Your task to perform on an android device: check battery use Image 0: 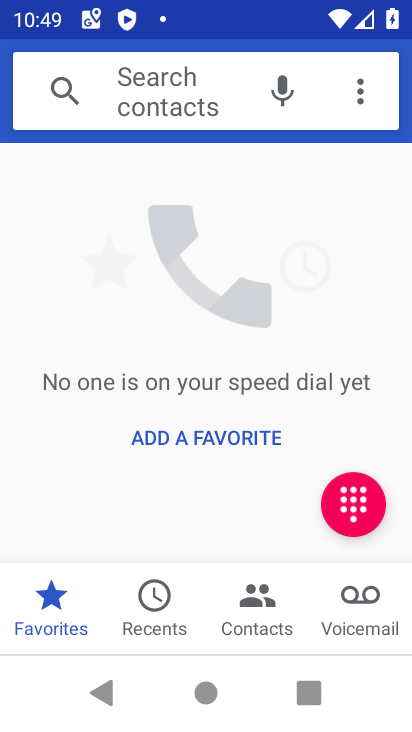
Step 0: press home button
Your task to perform on an android device: check battery use Image 1: 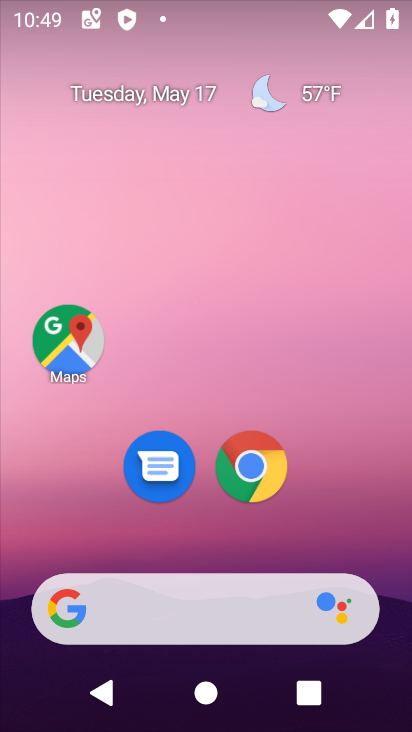
Step 1: drag from (224, 553) to (238, 0)
Your task to perform on an android device: check battery use Image 2: 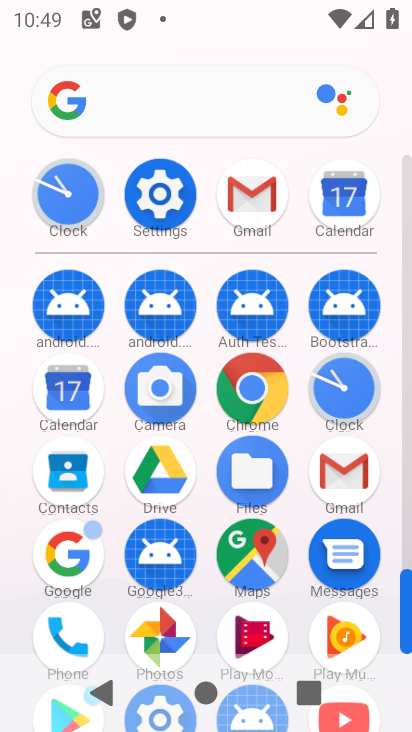
Step 2: click (172, 198)
Your task to perform on an android device: check battery use Image 3: 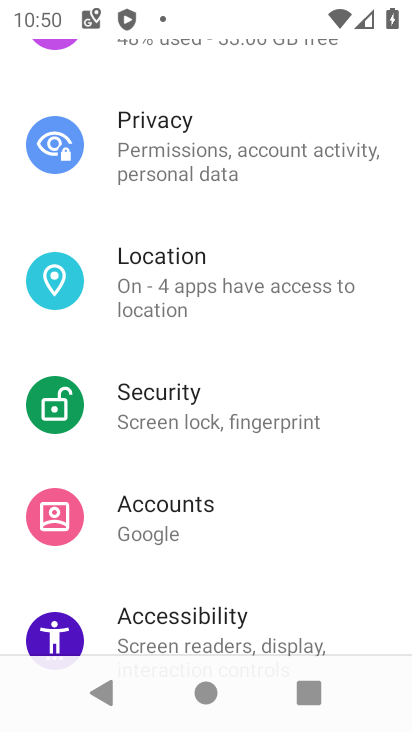
Step 3: drag from (216, 81) to (193, 481)
Your task to perform on an android device: check battery use Image 4: 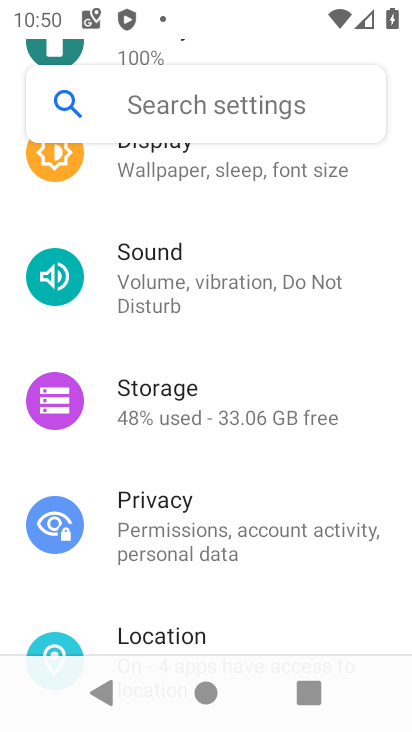
Step 4: drag from (157, 188) to (153, 528)
Your task to perform on an android device: check battery use Image 5: 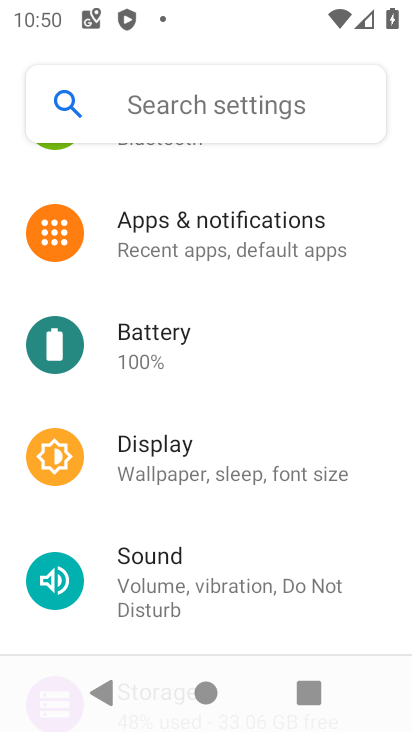
Step 5: click (167, 367)
Your task to perform on an android device: check battery use Image 6: 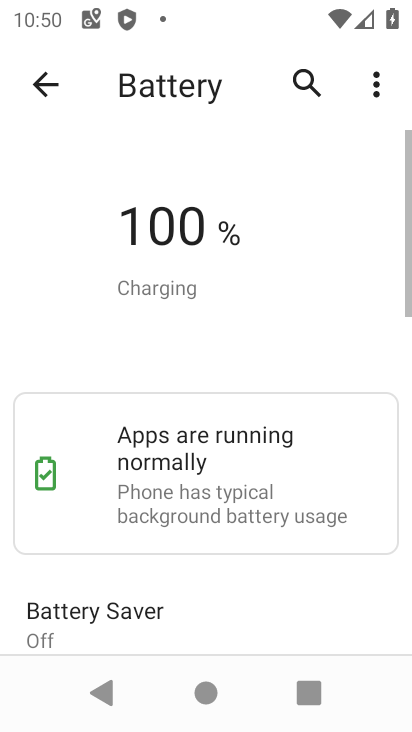
Step 6: click (385, 54)
Your task to perform on an android device: check battery use Image 7: 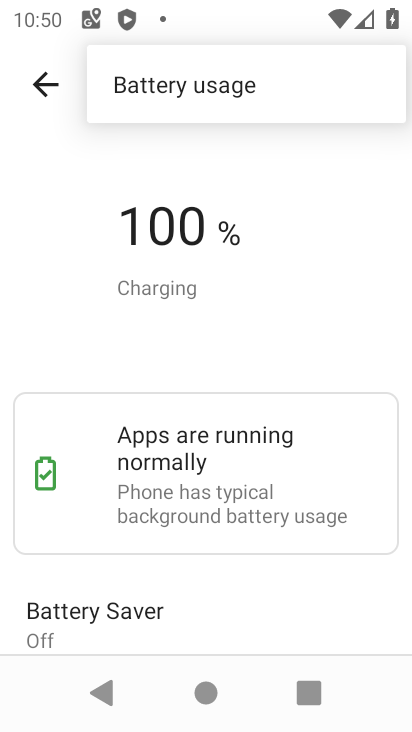
Step 7: click (294, 112)
Your task to perform on an android device: check battery use Image 8: 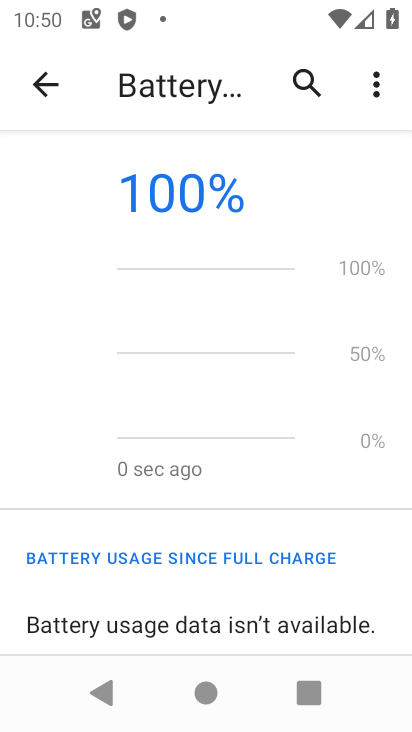
Step 8: task complete